Your task to perform on an android device: toggle data saver in the chrome app Image 0: 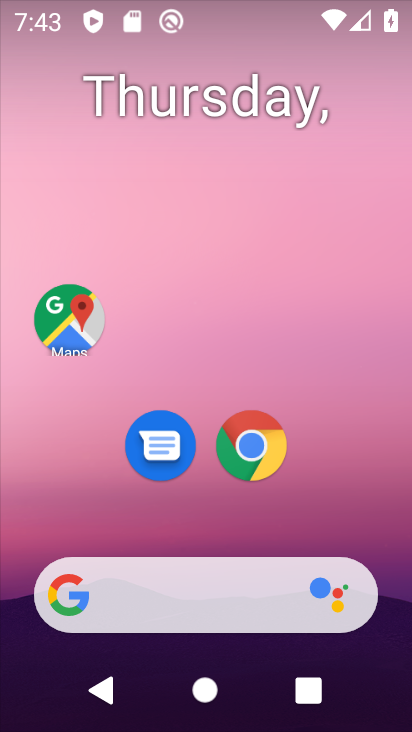
Step 0: click (248, 447)
Your task to perform on an android device: toggle data saver in the chrome app Image 1: 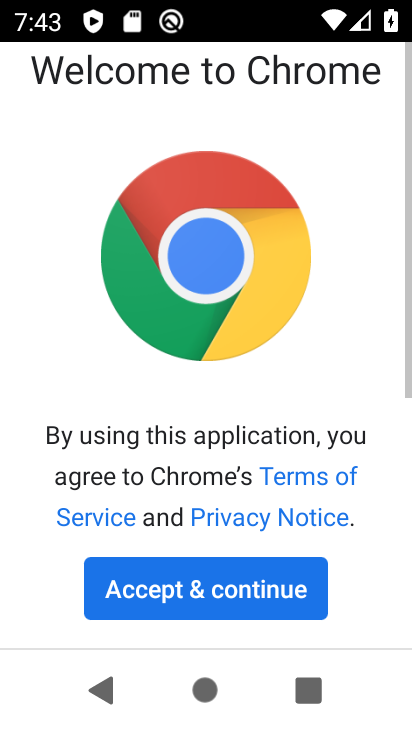
Step 1: click (203, 574)
Your task to perform on an android device: toggle data saver in the chrome app Image 2: 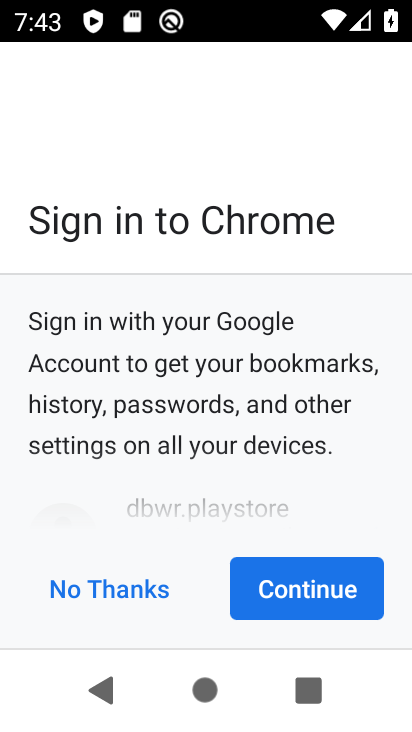
Step 2: click (114, 574)
Your task to perform on an android device: toggle data saver in the chrome app Image 3: 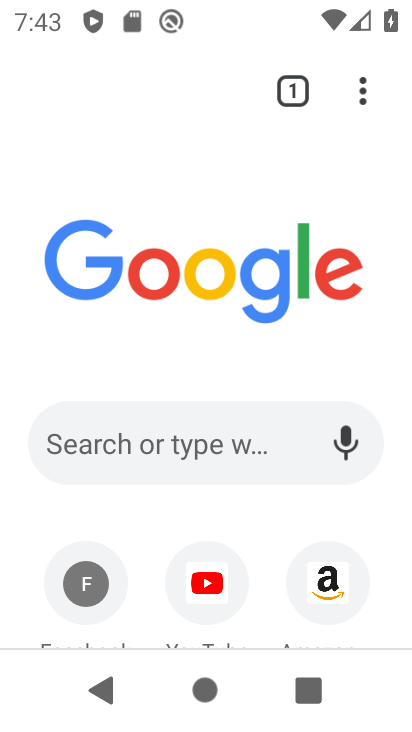
Step 3: click (368, 87)
Your task to perform on an android device: toggle data saver in the chrome app Image 4: 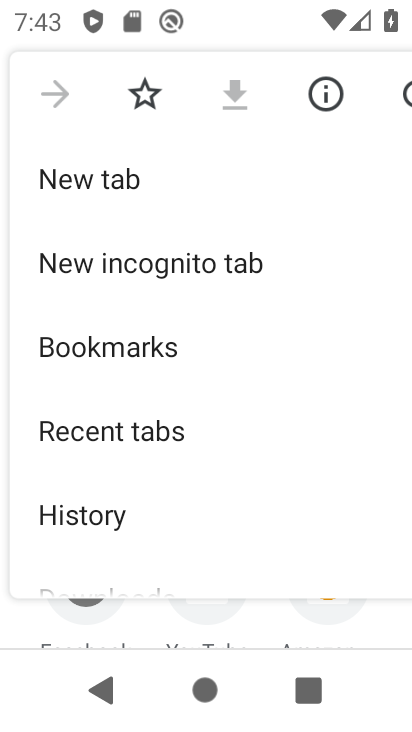
Step 4: drag from (189, 510) to (163, 135)
Your task to perform on an android device: toggle data saver in the chrome app Image 5: 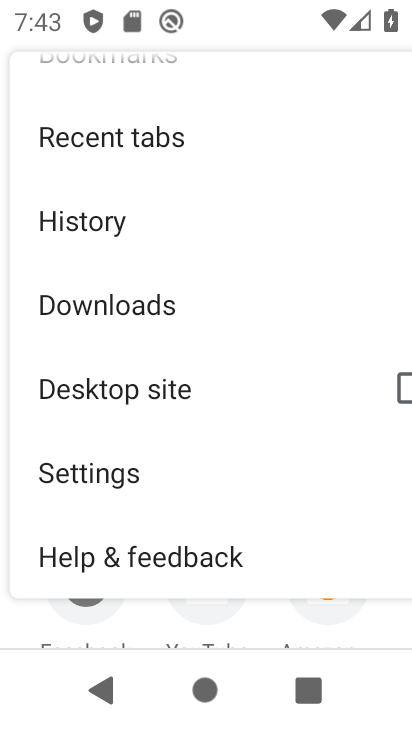
Step 5: click (87, 478)
Your task to perform on an android device: toggle data saver in the chrome app Image 6: 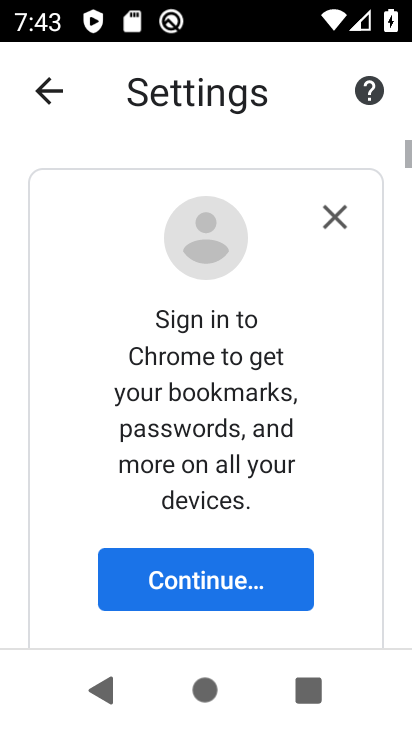
Step 6: drag from (364, 600) to (318, 153)
Your task to perform on an android device: toggle data saver in the chrome app Image 7: 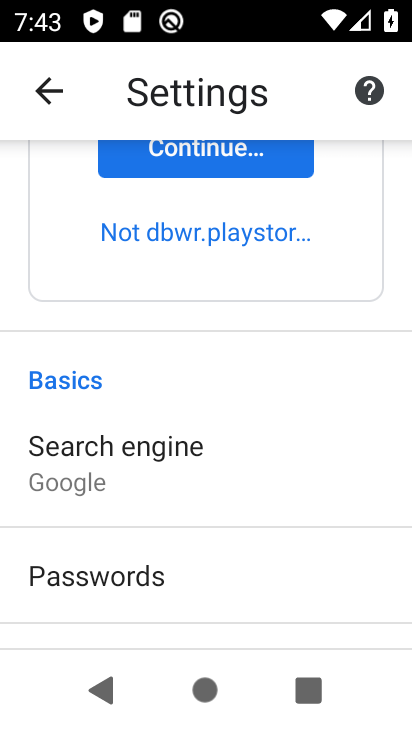
Step 7: drag from (182, 543) to (196, 120)
Your task to perform on an android device: toggle data saver in the chrome app Image 8: 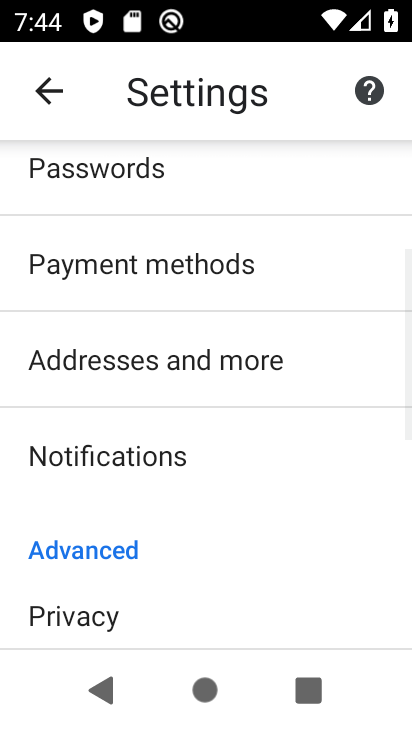
Step 8: drag from (155, 550) to (147, 194)
Your task to perform on an android device: toggle data saver in the chrome app Image 9: 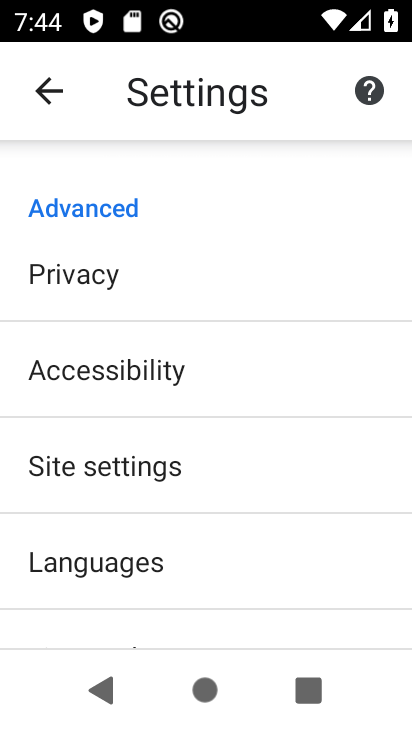
Step 9: drag from (218, 539) to (215, 233)
Your task to perform on an android device: toggle data saver in the chrome app Image 10: 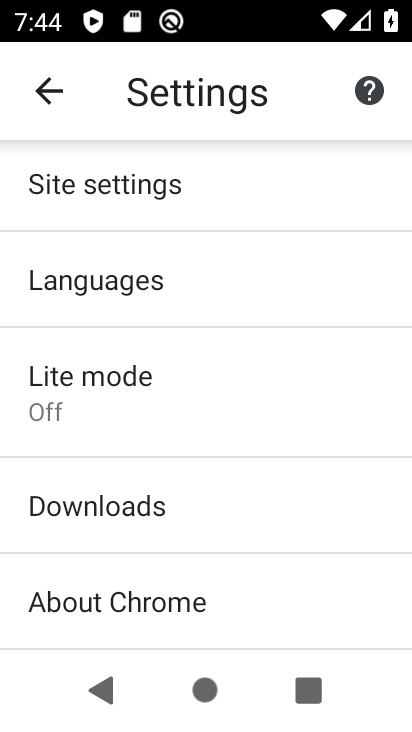
Step 10: click (90, 394)
Your task to perform on an android device: toggle data saver in the chrome app Image 11: 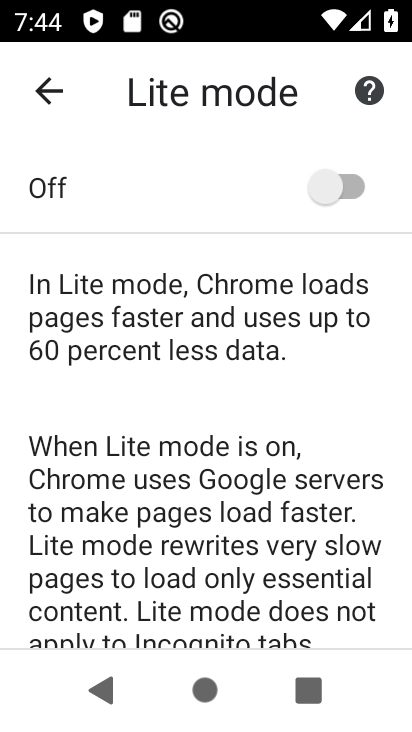
Step 11: click (339, 198)
Your task to perform on an android device: toggle data saver in the chrome app Image 12: 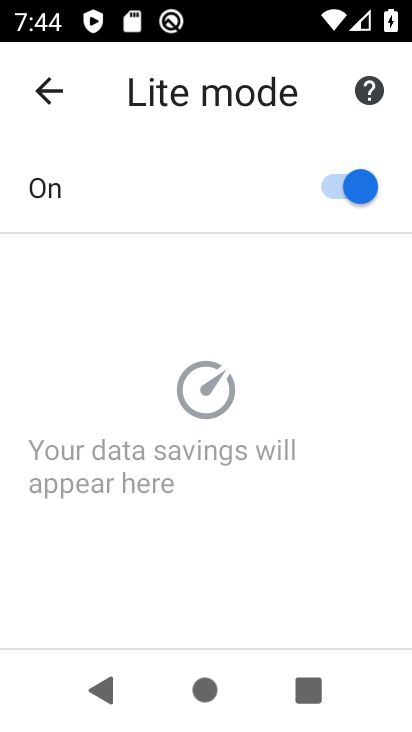
Step 12: task complete